Your task to perform on an android device: change notifications settings Image 0: 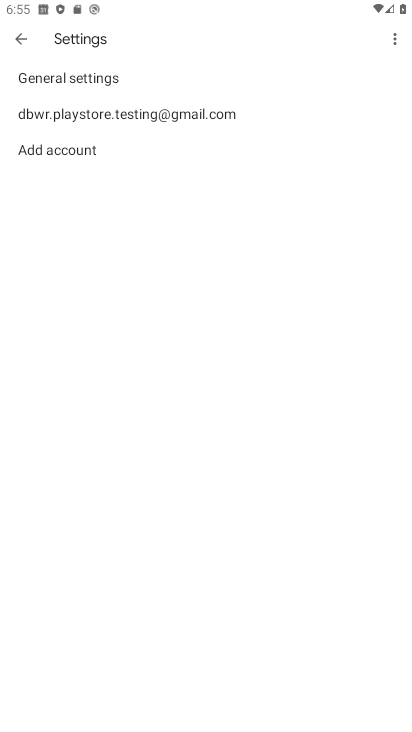
Step 0: press home button
Your task to perform on an android device: change notifications settings Image 1: 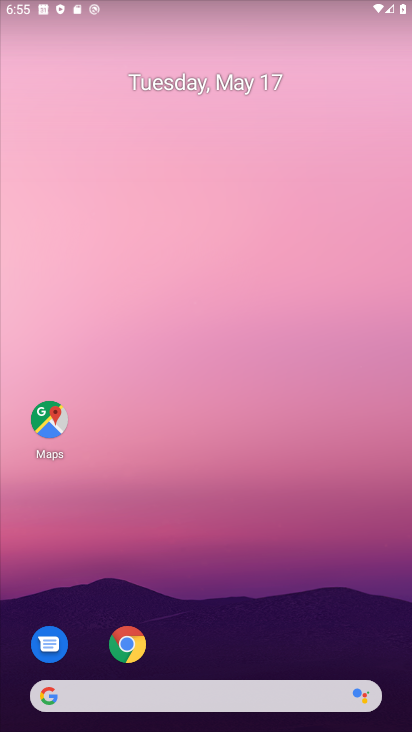
Step 1: drag from (358, 618) to (289, 2)
Your task to perform on an android device: change notifications settings Image 2: 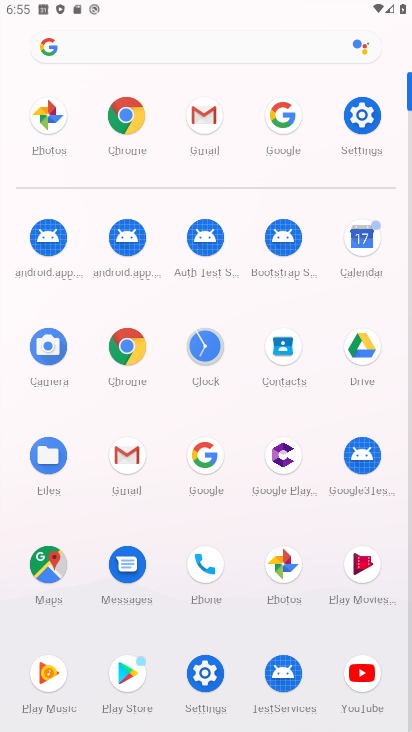
Step 2: click (371, 168)
Your task to perform on an android device: change notifications settings Image 3: 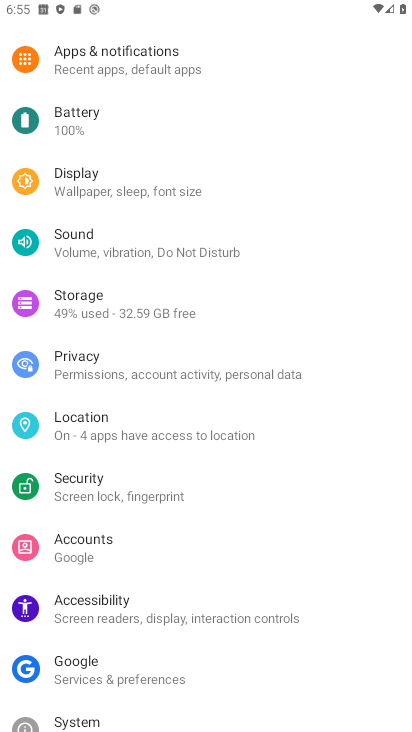
Step 3: click (134, 67)
Your task to perform on an android device: change notifications settings Image 4: 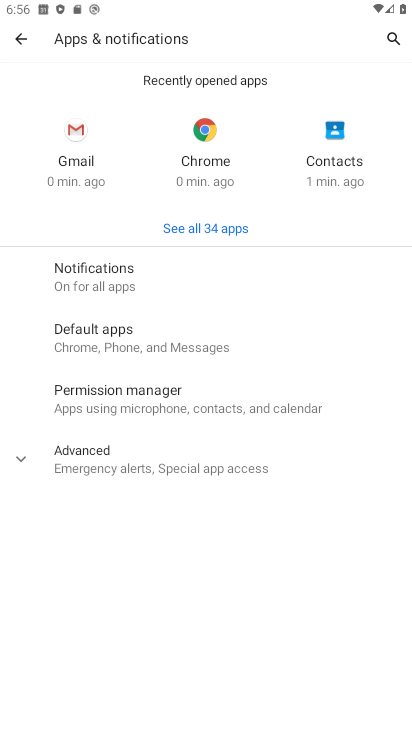
Step 4: click (129, 276)
Your task to perform on an android device: change notifications settings Image 5: 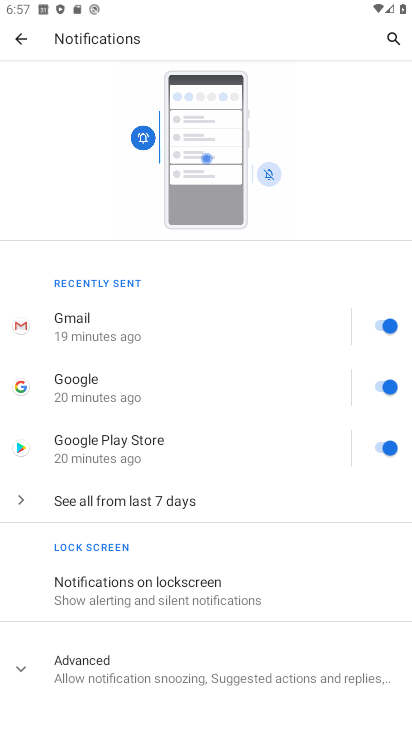
Step 5: task complete